Your task to perform on an android device: delete location history Image 0: 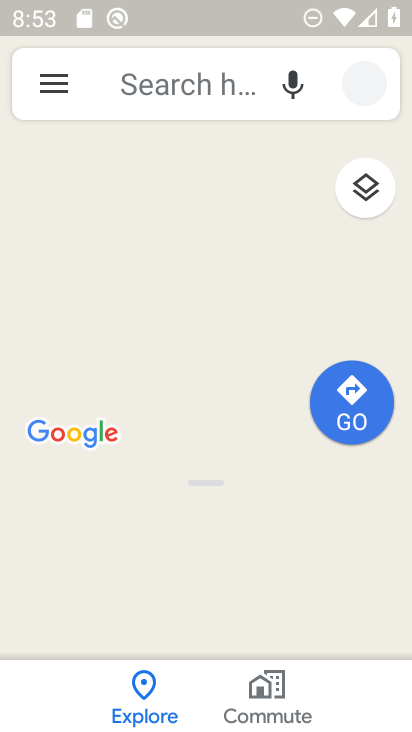
Step 0: press home button
Your task to perform on an android device: delete location history Image 1: 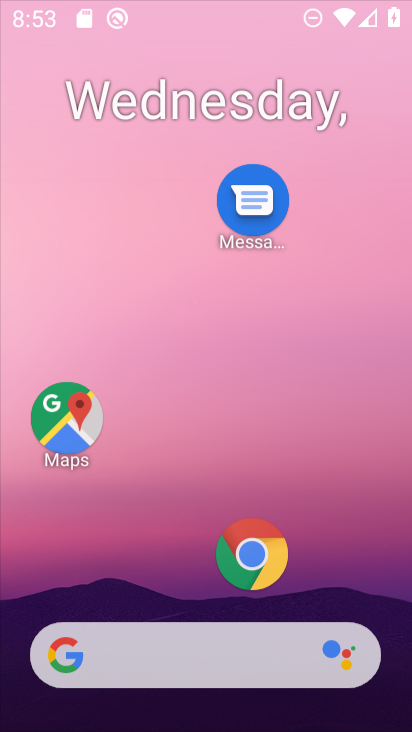
Step 1: drag from (189, 253) to (193, 90)
Your task to perform on an android device: delete location history Image 2: 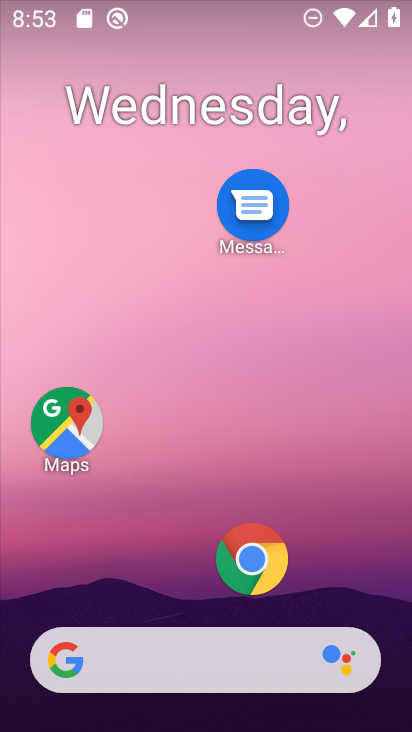
Step 2: drag from (132, 584) to (86, 80)
Your task to perform on an android device: delete location history Image 3: 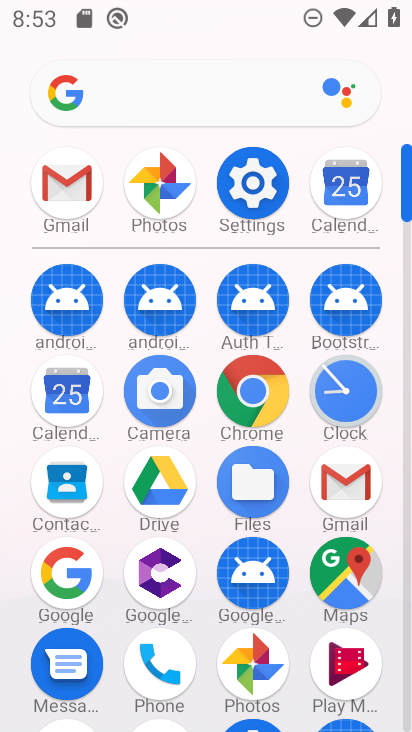
Step 3: click (265, 214)
Your task to perform on an android device: delete location history Image 4: 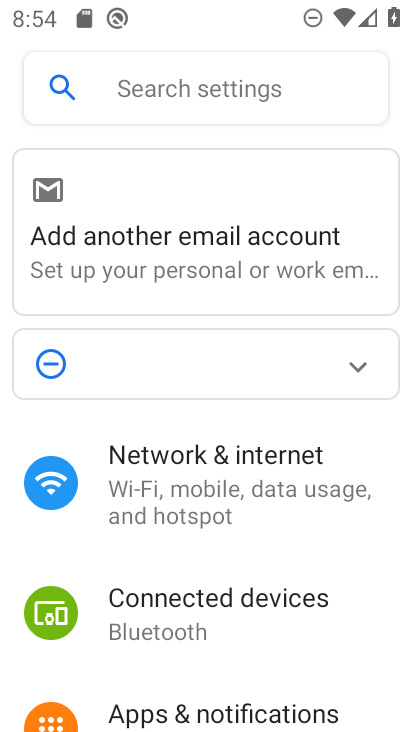
Step 4: drag from (231, 556) to (268, 155)
Your task to perform on an android device: delete location history Image 5: 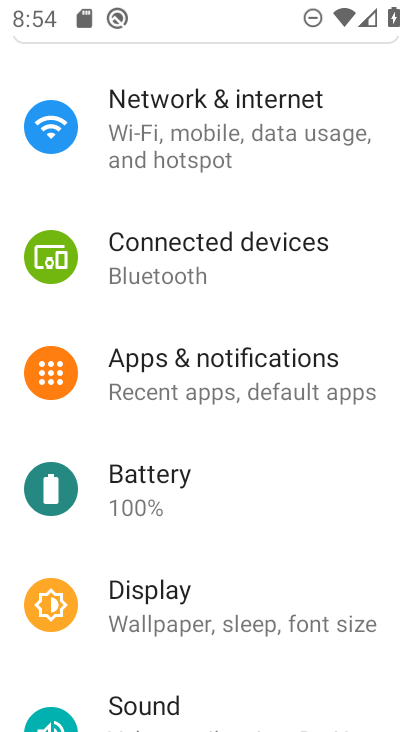
Step 5: drag from (204, 611) to (264, 153)
Your task to perform on an android device: delete location history Image 6: 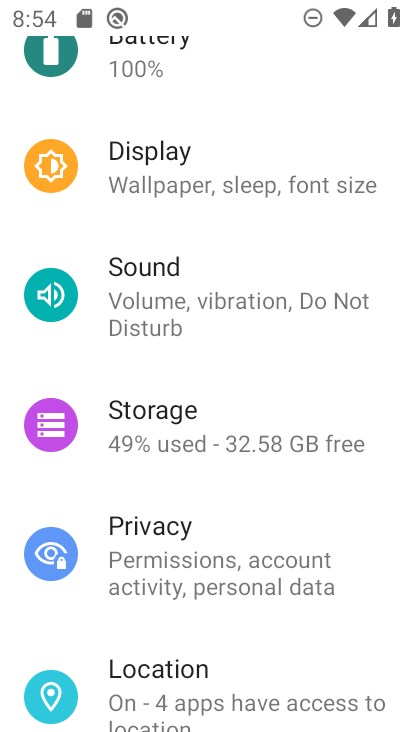
Step 6: click (206, 703)
Your task to perform on an android device: delete location history Image 7: 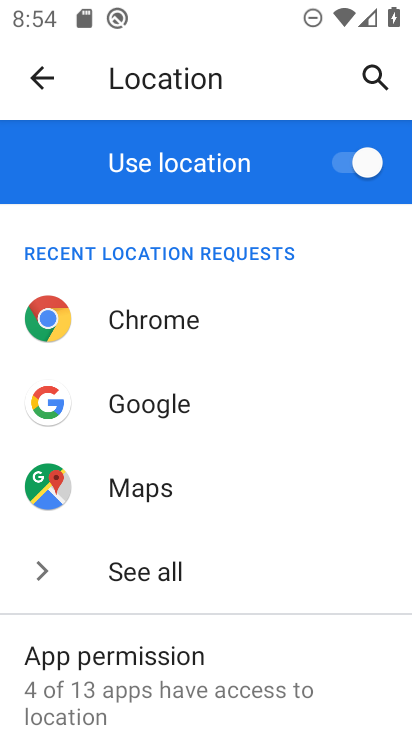
Step 7: drag from (189, 567) to (219, 6)
Your task to perform on an android device: delete location history Image 8: 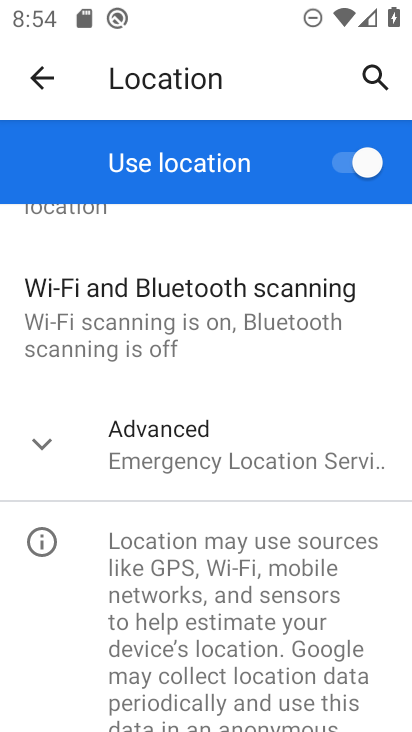
Step 8: click (214, 450)
Your task to perform on an android device: delete location history Image 9: 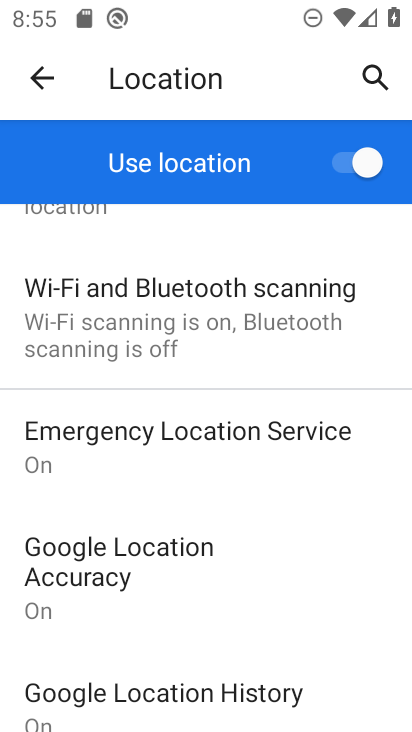
Step 9: click (199, 699)
Your task to perform on an android device: delete location history Image 10: 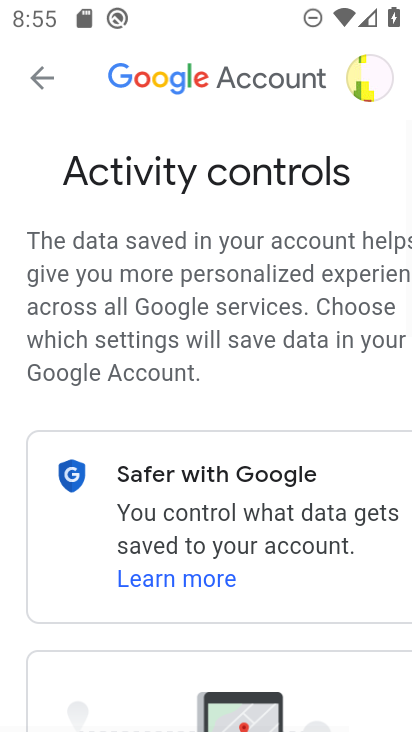
Step 10: drag from (176, 508) to (113, 130)
Your task to perform on an android device: delete location history Image 11: 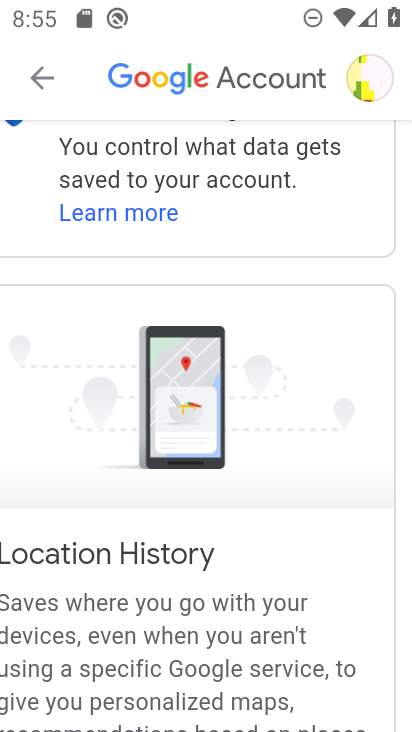
Step 11: drag from (239, 587) to (242, 198)
Your task to perform on an android device: delete location history Image 12: 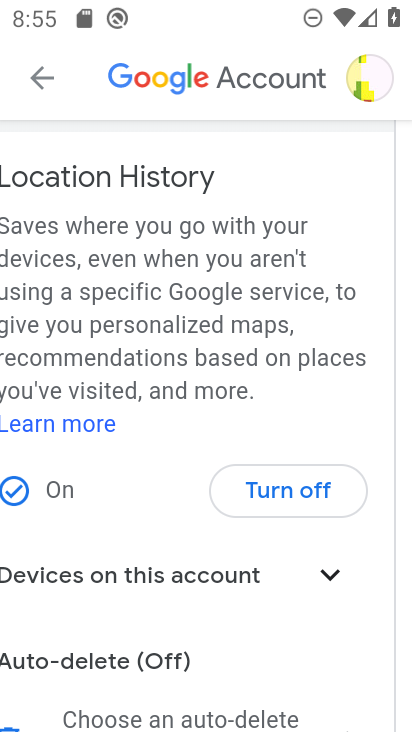
Step 12: drag from (208, 568) to (205, 311)
Your task to perform on an android device: delete location history Image 13: 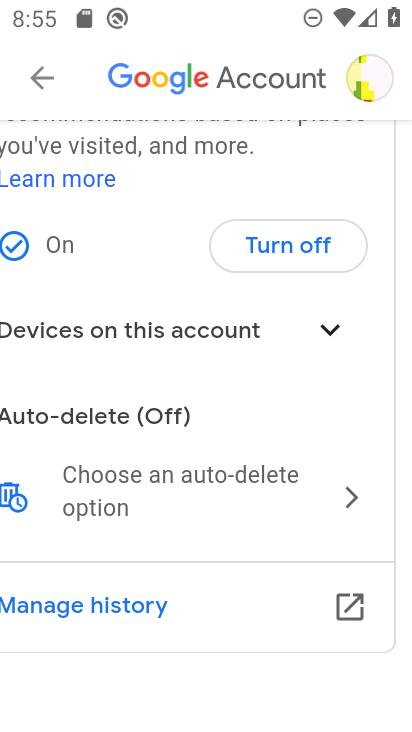
Step 13: click (208, 516)
Your task to perform on an android device: delete location history Image 14: 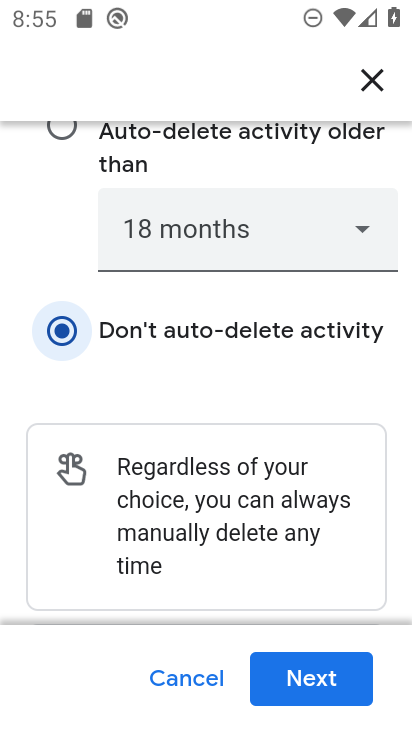
Step 14: click (318, 676)
Your task to perform on an android device: delete location history Image 15: 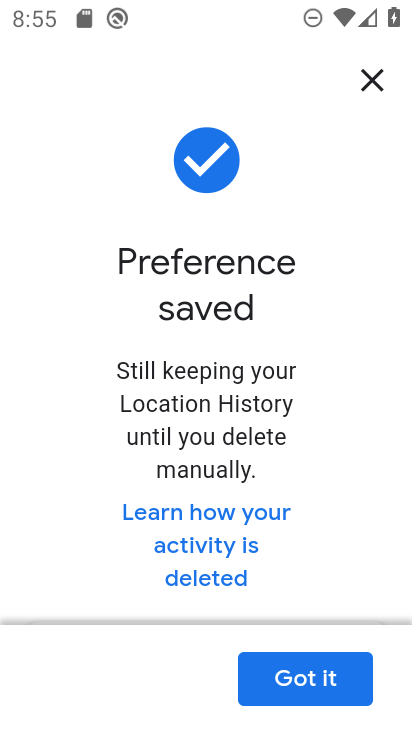
Step 15: click (354, 701)
Your task to perform on an android device: delete location history Image 16: 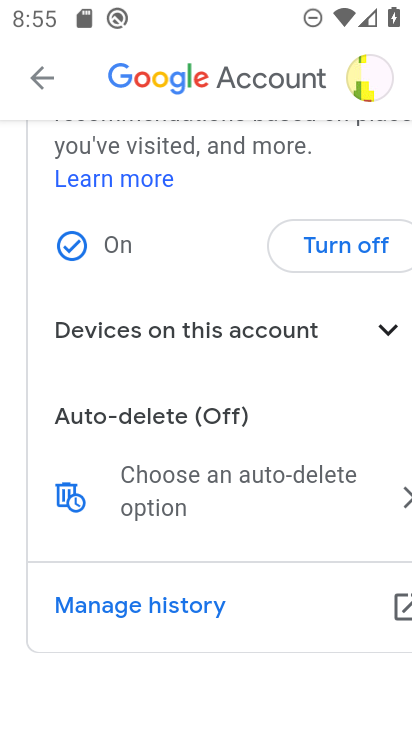
Step 16: task complete